Your task to perform on an android device: Go to Amazon Image 0: 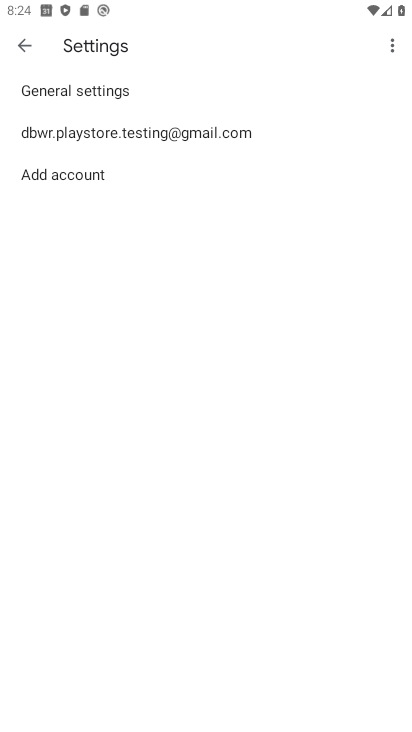
Step 0: press home button
Your task to perform on an android device: Go to Amazon Image 1: 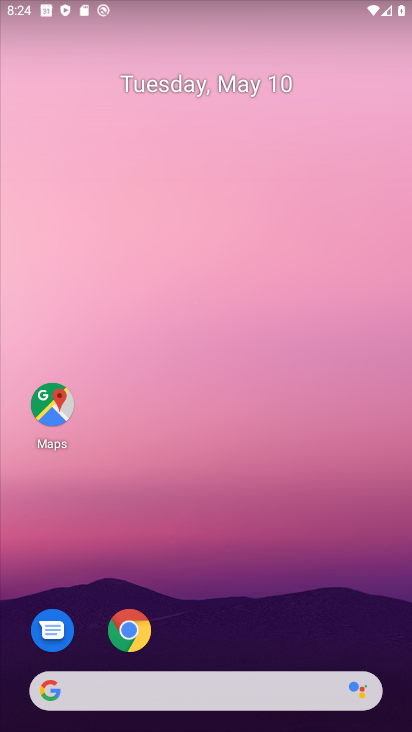
Step 1: click (64, 697)
Your task to perform on an android device: Go to Amazon Image 2: 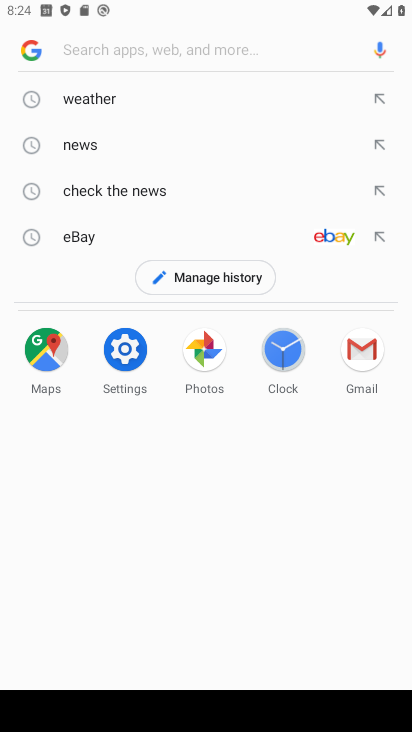
Step 2: type "amazon"
Your task to perform on an android device: Go to Amazon Image 3: 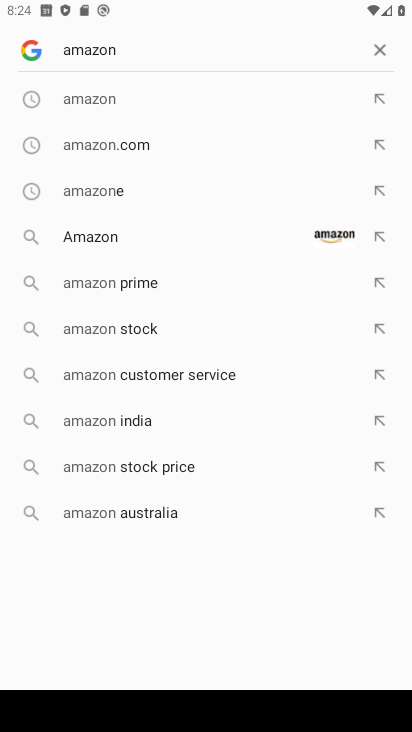
Step 3: click (325, 234)
Your task to perform on an android device: Go to Amazon Image 4: 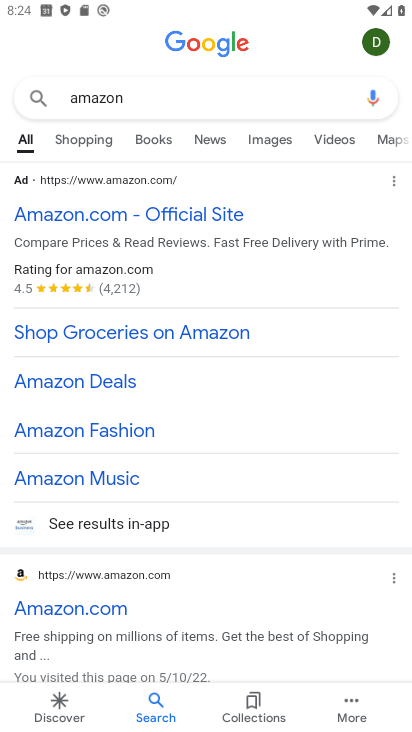
Step 4: task complete